Your task to perform on an android device: toggle javascript in the chrome app Image 0: 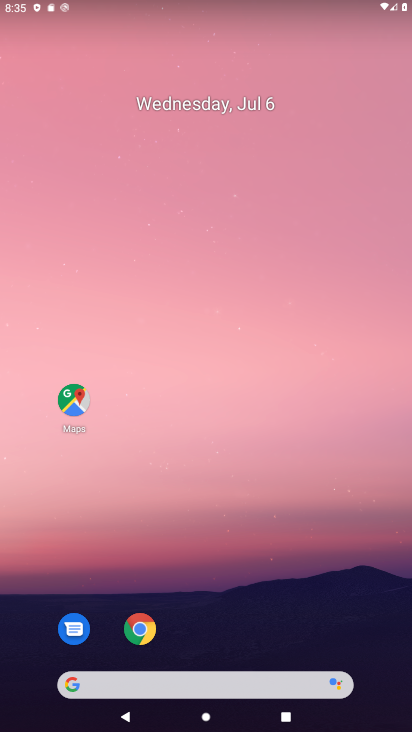
Step 0: click (140, 628)
Your task to perform on an android device: toggle javascript in the chrome app Image 1: 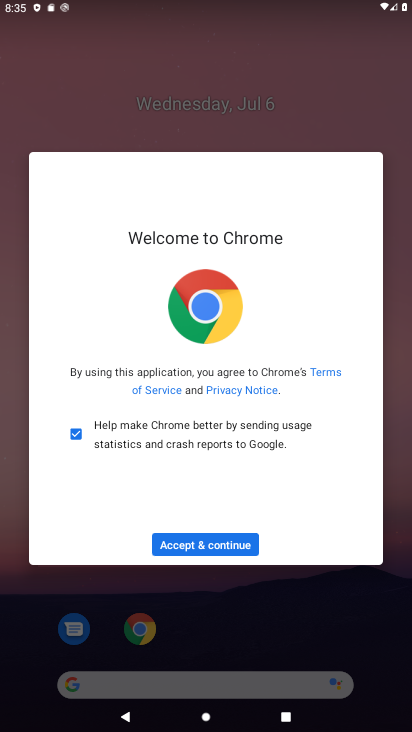
Step 1: click (188, 546)
Your task to perform on an android device: toggle javascript in the chrome app Image 2: 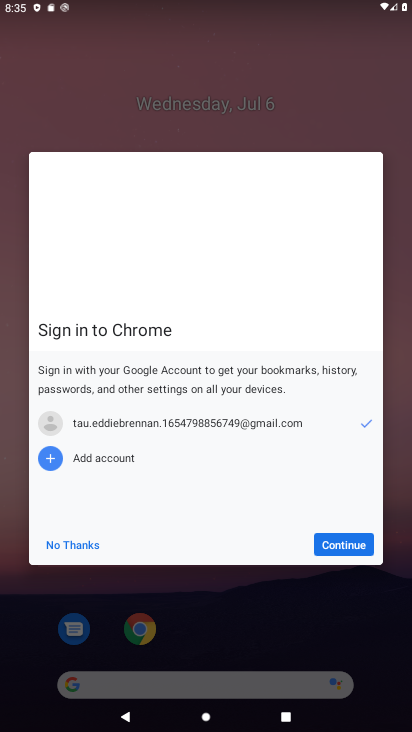
Step 2: click (331, 546)
Your task to perform on an android device: toggle javascript in the chrome app Image 3: 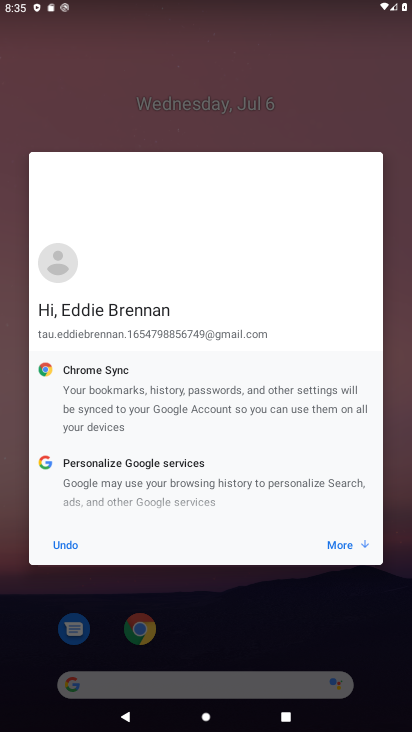
Step 3: click (331, 546)
Your task to perform on an android device: toggle javascript in the chrome app Image 4: 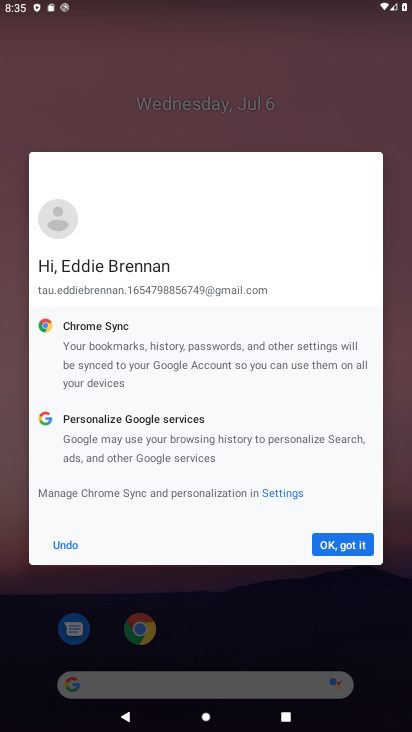
Step 4: click (340, 544)
Your task to perform on an android device: toggle javascript in the chrome app Image 5: 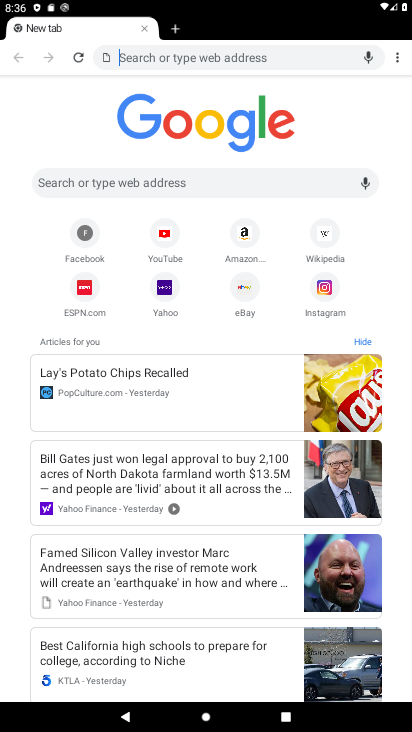
Step 5: click (397, 56)
Your task to perform on an android device: toggle javascript in the chrome app Image 6: 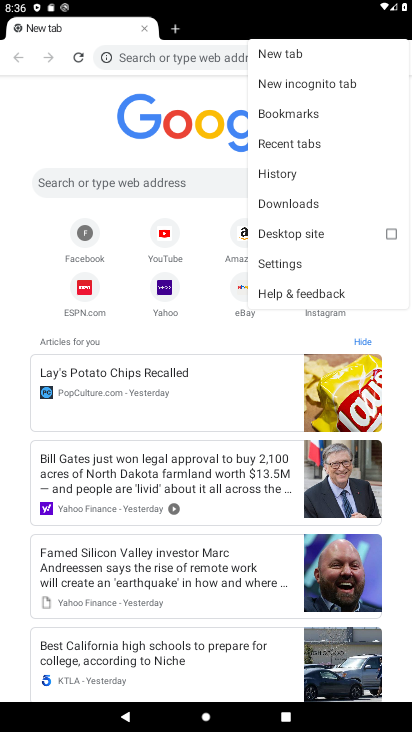
Step 6: click (292, 263)
Your task to perform on an android device: toggle javascript in the chrome app Image 7: 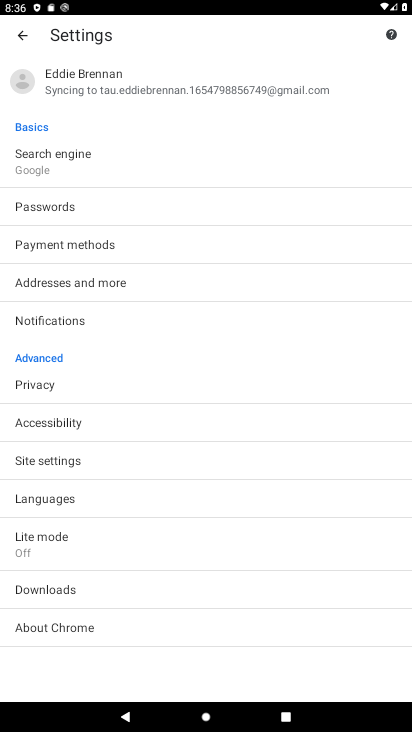
Step 7: click (52, 461)
Your task to perform on an android device: toggle javascript in the chrome app Image 8: 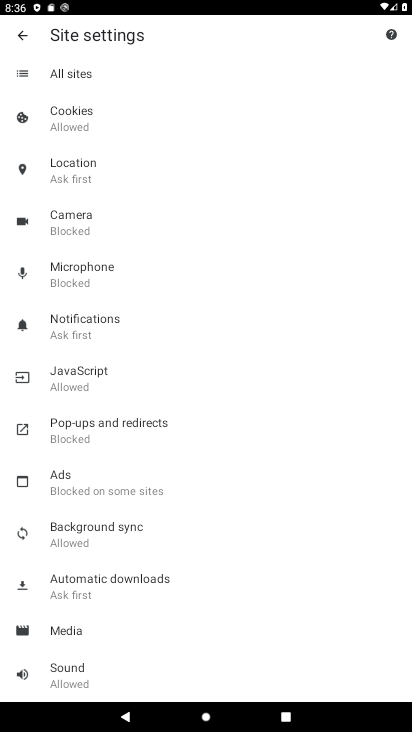
Step 8: click (94, 378)
Your task to perform on an android device: toggle javascript in the chrome app Image 9: 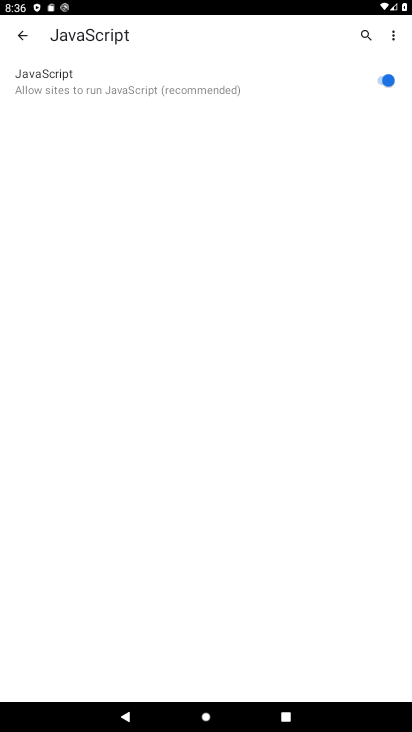
Step 9: click (384, 85)
Your task to perform on an android device: toggle javascript in the chrome app Image 10: 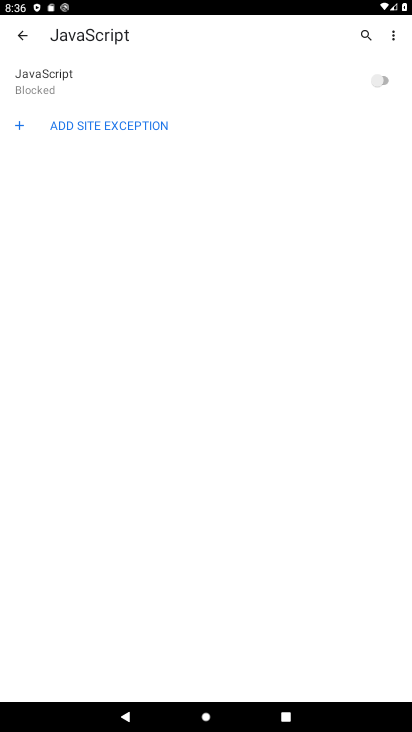
Step 10: task complete